Your task to perform on an android device: toggle notification dots Image 0: 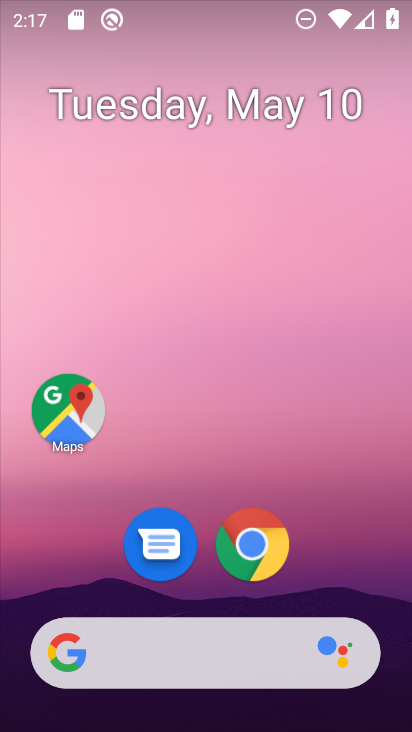
Step 0: drag from (213, 726) to (217, 62)
Your task to perform on an android device: toggle notification dots Image 1: 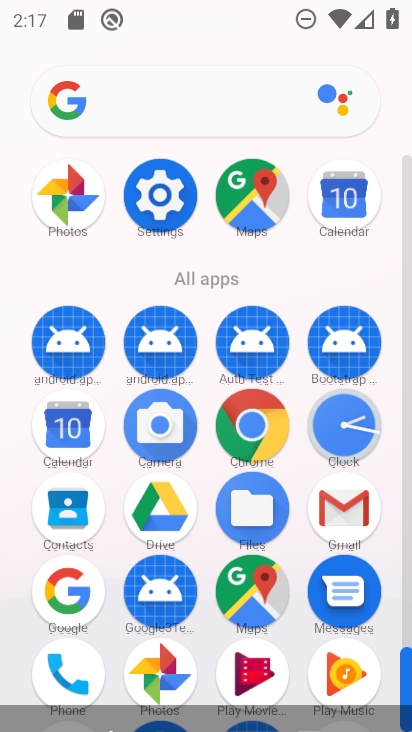
Step 1: click (170, 189)
Your task to perform on an android device: toggle notification dots Image 2: 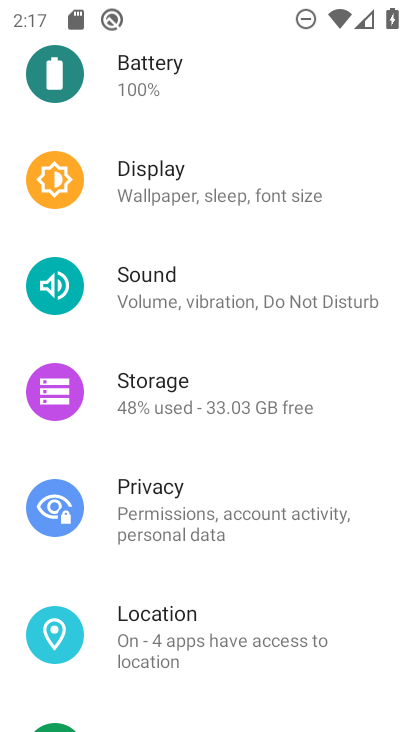
Step 2: drag from (288, 162) to (291, 589)
Your task to perform on an android device: toggle notification dots Image 3: 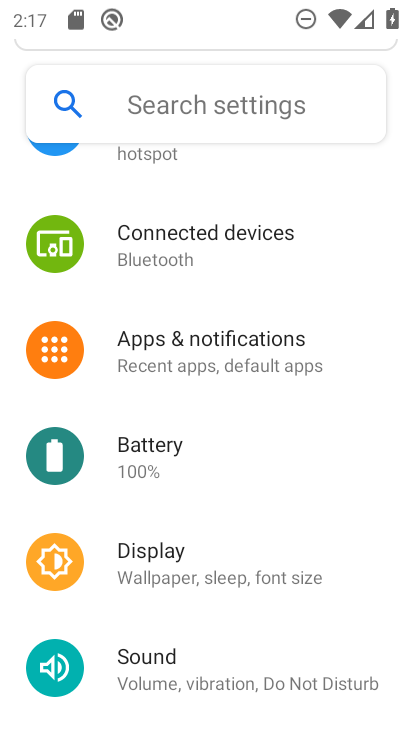
Step 3: click (228, 353)
Your task to perform on an android device: toggle notification dots Image 4: 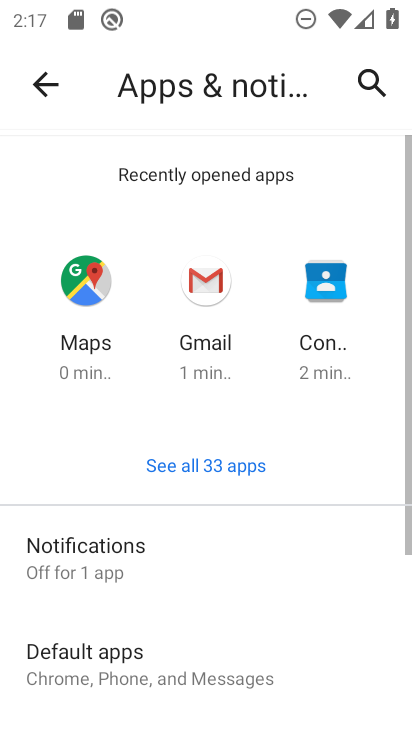
Step 4: drag from (192, 656) to (188, 466)
Your task to perform on an android device: toggle notification dots Image 5: 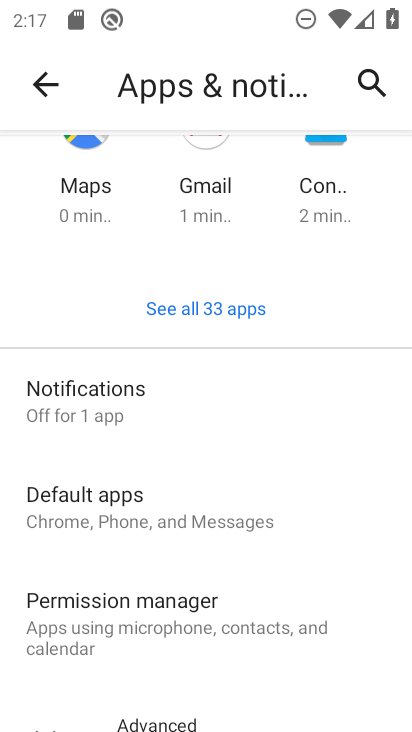
Step 5: click (92, 408)
Your task to perform on an android device: toggle notification dots Image 6: 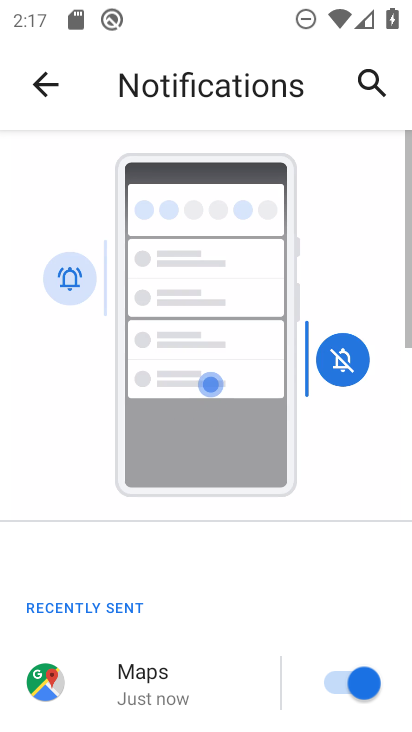
Step 6: drag from (183, 679) to (186, 293)
Your task to perform on an android device: toggle notification dots Image 7: 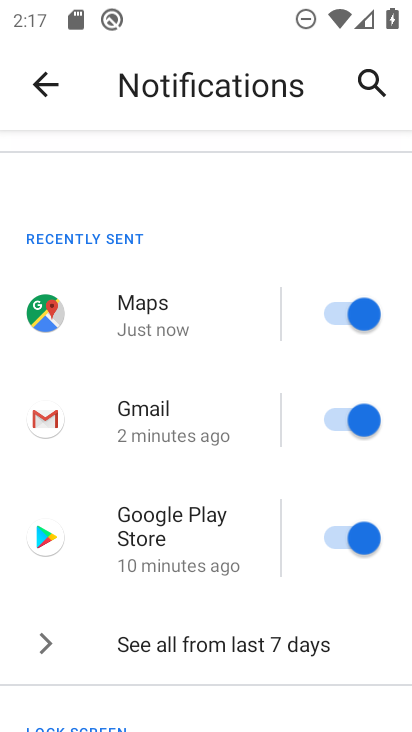
Step 7: drag from (249, 673) to (240, 271)
Your task to perform on an android device: toggle notification dots Image 8: 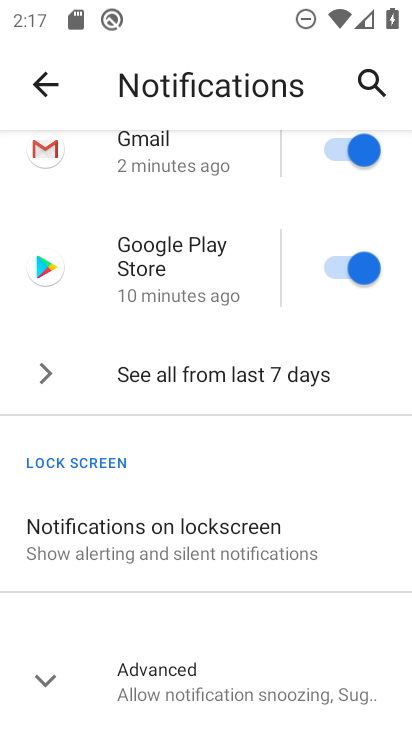
Step 8: click (180, 688)
Your task to perform on an android device: toggle notification dots Image 9: 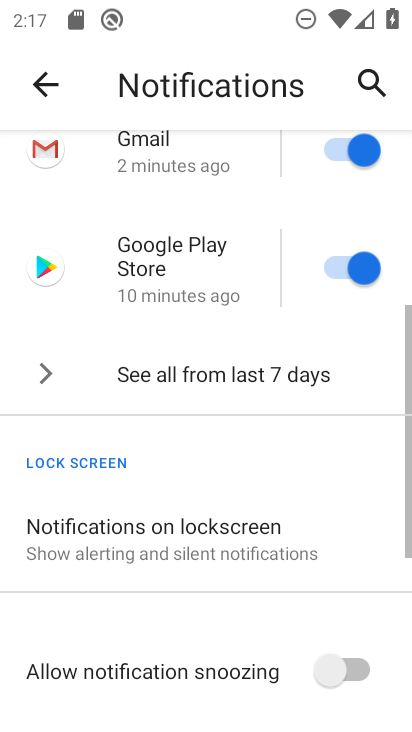
Step 9: drag from (252, 705) to (251, 368)
Your task to perform on an android device: toggle notification dots Image 10: 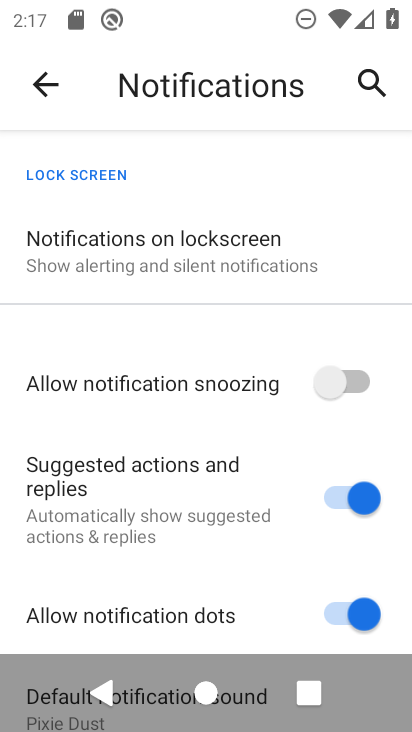
Step 10: click (335, 616)
Your task to perform on an android device: toggle notification dots Image 11: 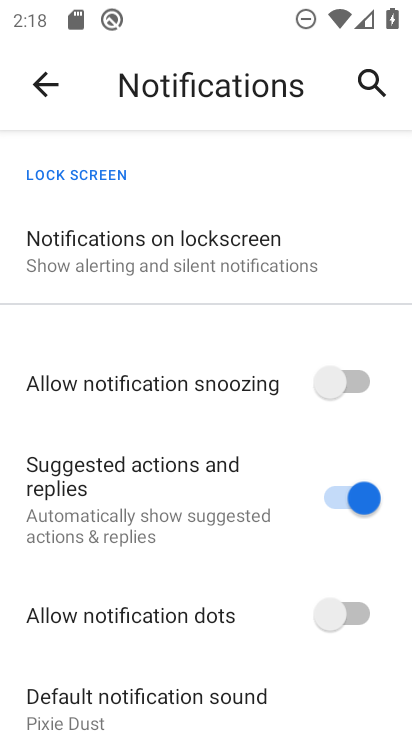
Step 11: task complete